Your task to perform on an android device: Go to Yahoo.com Image 0: 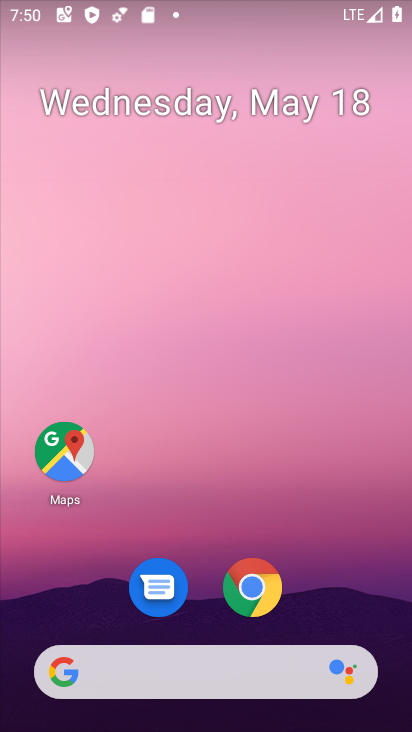
Step 0: click (253, 588)
Your task to perform on an android device: Go to Yahoo.com Image 1: 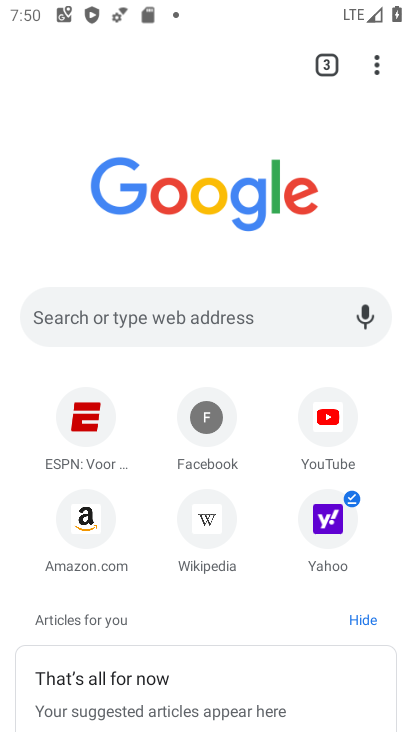
Step 1: click (322, 516)
Your task to perform on an android device: Go to Yahoo.com Image 2: 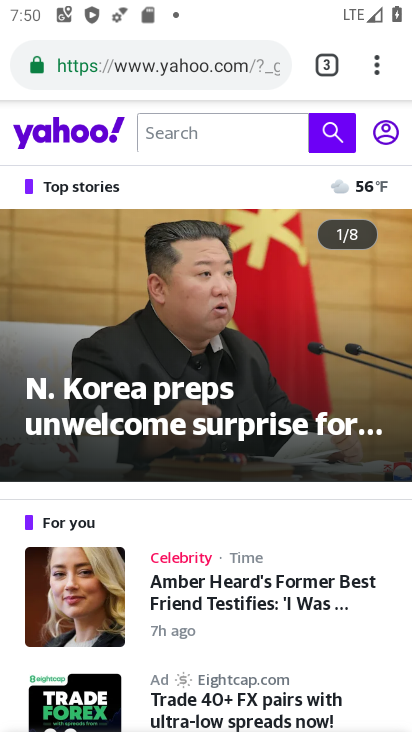
Step 2: task complete